Your task to perform on an android device: How big is a lion? Image 0: 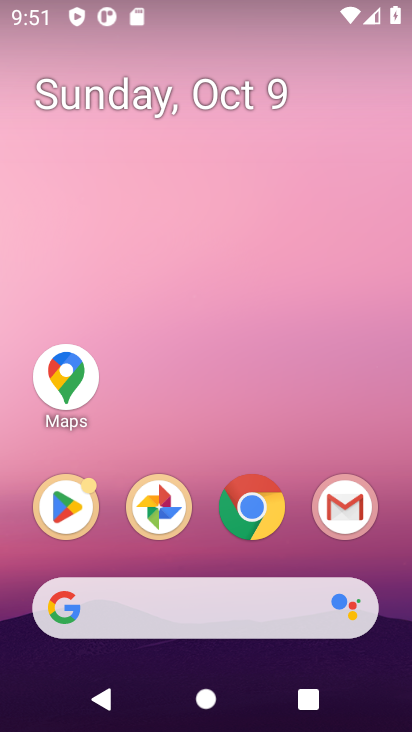
Step 0: drag from (190, 557) to (167, 239)
Your task to perform on an android device: How big is a lion? Image 1: 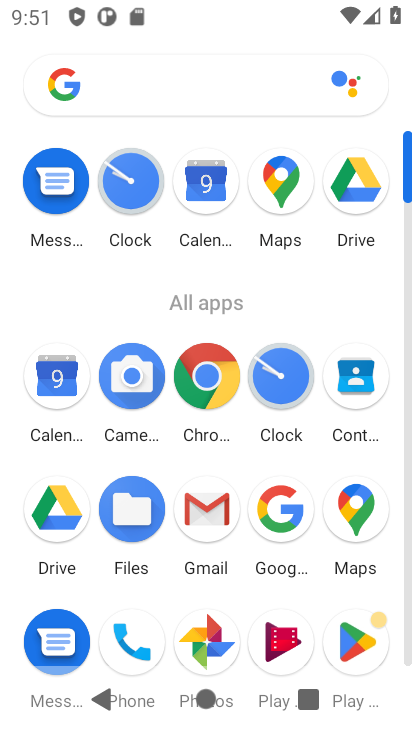
Step 1: click (210, 378)
Your task to perform on an android device: How big is a lion? Image 2: 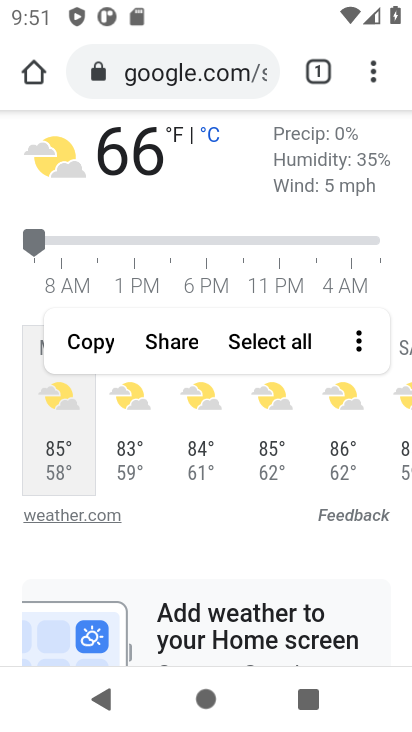
Step 2: click (189, 62)
Your task to perform on an android device: How big is a lion? Image 3: 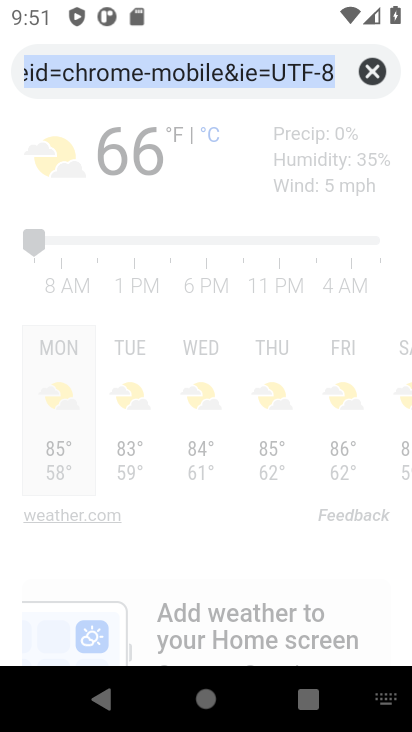
Step 3: type "How big is a lion"
Your task to perform on an android device: How big is a lion? Image 4: 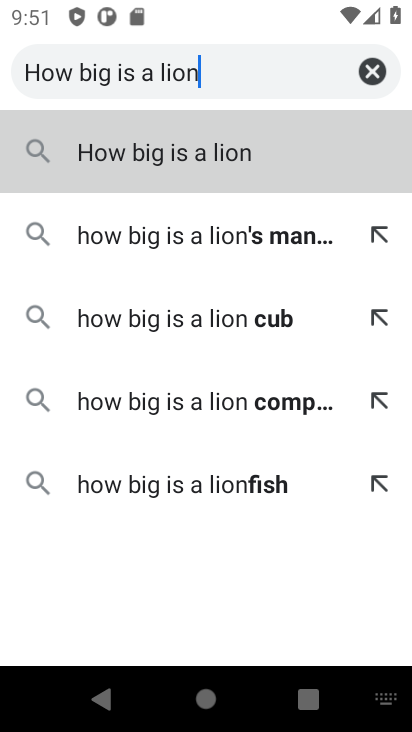
Step 4: press enter
Your task to perform on an android device: How big is a lion? Image 5: 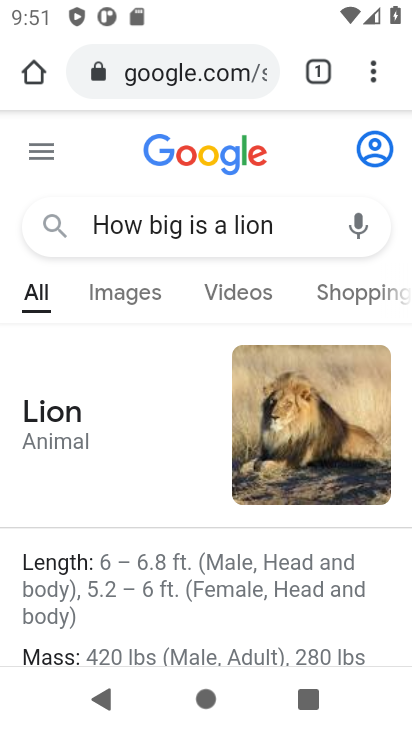
Step 5: task complete